Your task to perform on an android device: toggle show notifications on the lock screen Image 0: 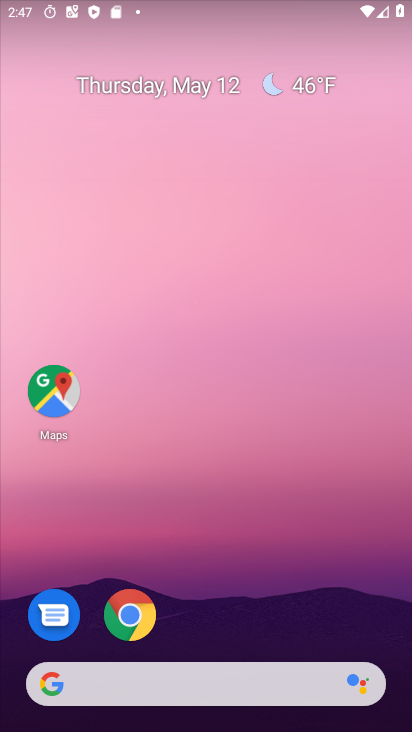
Step 0: drag from (210, 620) to (218, 183)
Your task to perform on an android device: toggle show notifications on the lock screen Image 1: 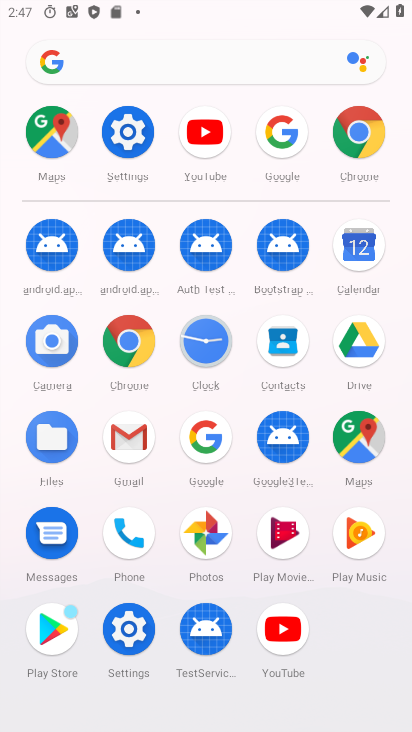
Step 1: click (125, 137)
Your task to perform on an android device: toggle show notifications on the lock screen Image 2: 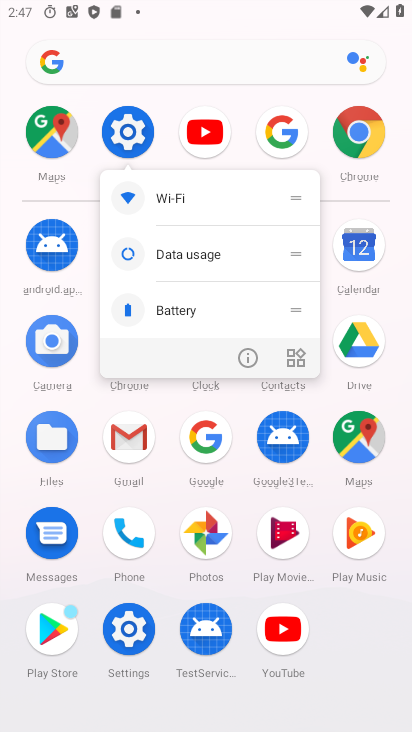
Step 2: click (129, 141)
Your task to perform on an android device: toggle show notifications on the lock screen Image 3: 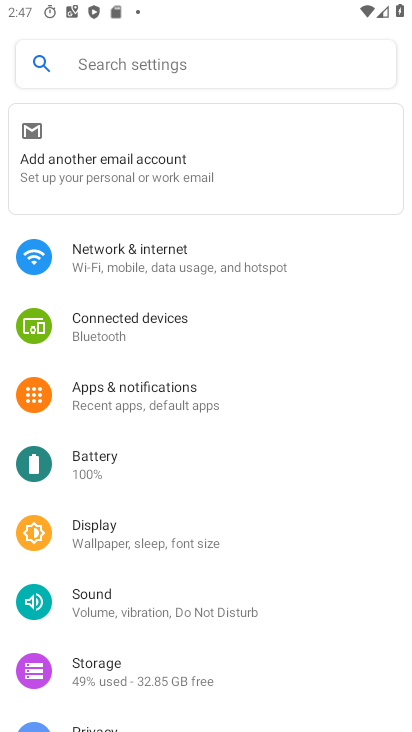
Step 3: click (185, 391)
Your task to perform on an android device: toggle show notifications on the lock screen Image 4: 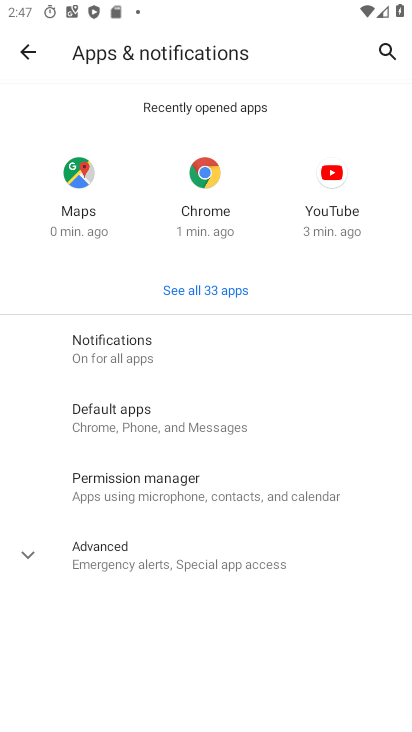
Step 4: click (138, 352)
Your task to perform on an android device: toggle show notifications on the lock screen Image 5: 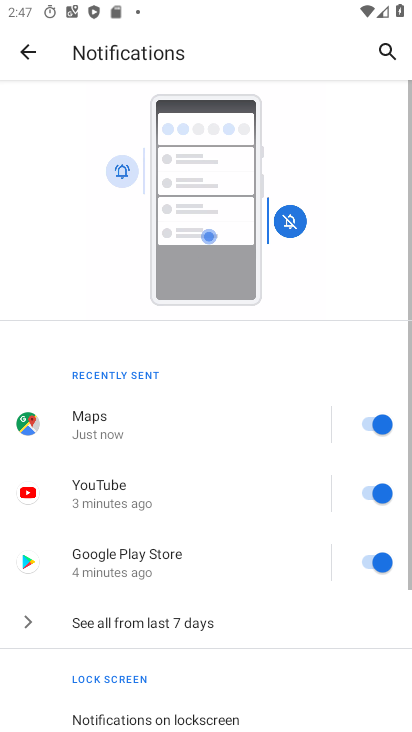
Step 5: drag from (185, 640) to (176, 307)
Your task to perform on an android device: toggle show notifications on the lock screen Image 6: 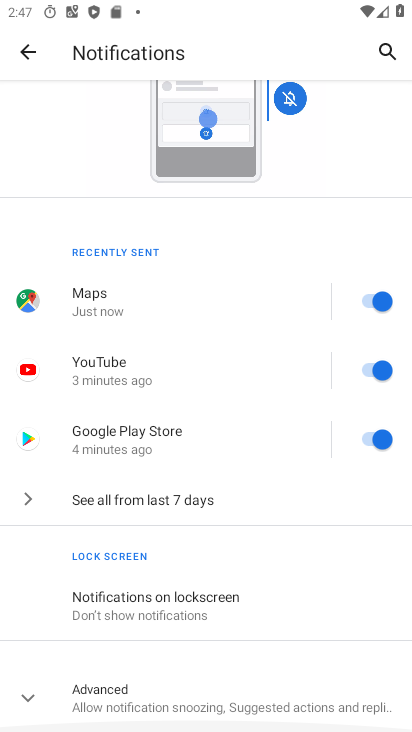
Step 6: click (171, 600)
Your task to perform on an android device: toggle show notifications on the lock screen Image 7: 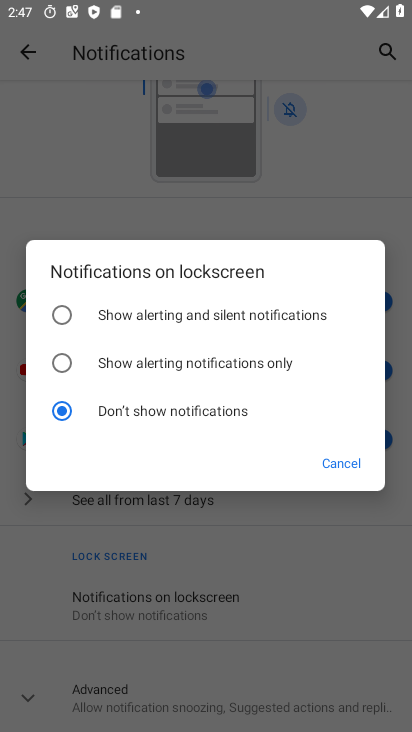
Step 7: click (57, 316)
Your task to perform on an android device: toggle show notifications on the lock screen Image 8: 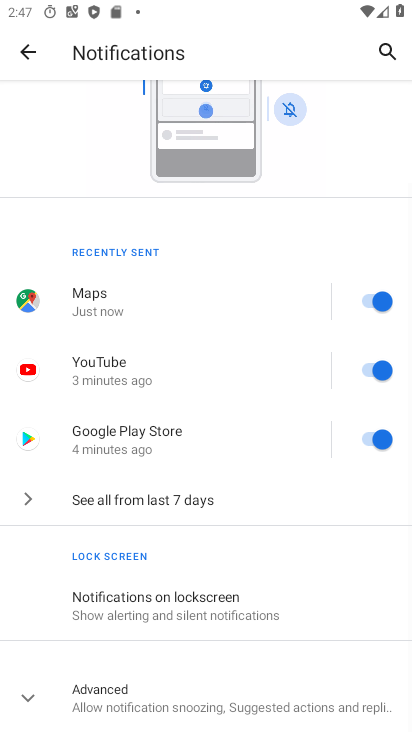
Step 8: task complete